Your task to perform on an android device: toggle airplane mode Image 0: 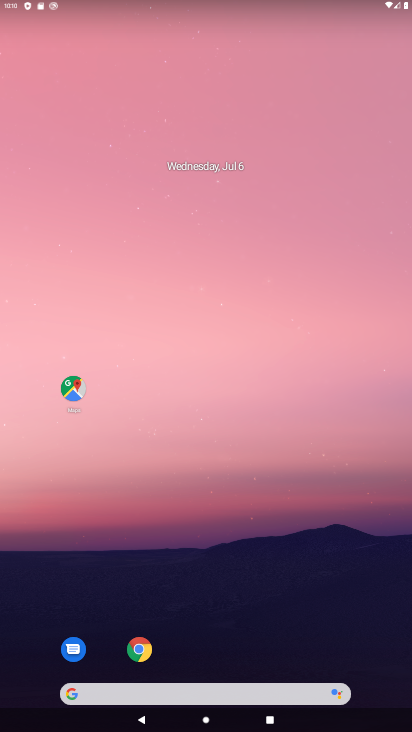
Step 0: drag from (363, 621) to (301, 255)
Your task to perform on an android device: toggle airplane mode Image 1: 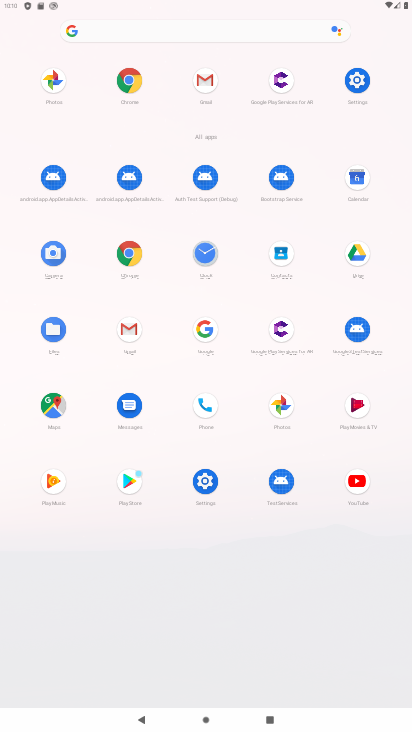
Step 1: click (367, 81)
Your task to perform on an android device: toggle airplane mode Image 2: 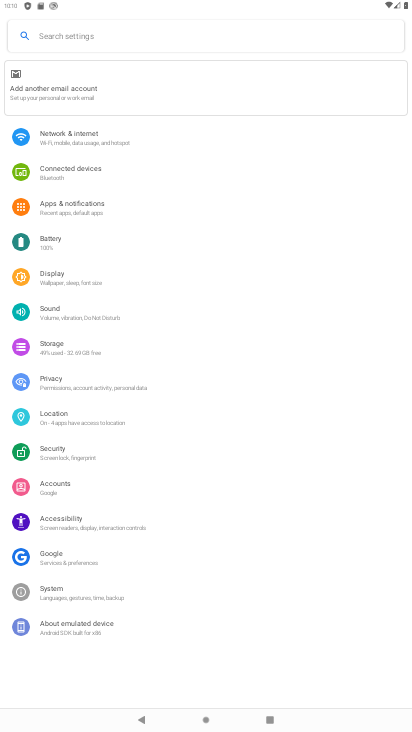
Step 2: drag from (290, 134) to (285, 497)
Your task to perform on an android device: toggle airplane mode Image 3: 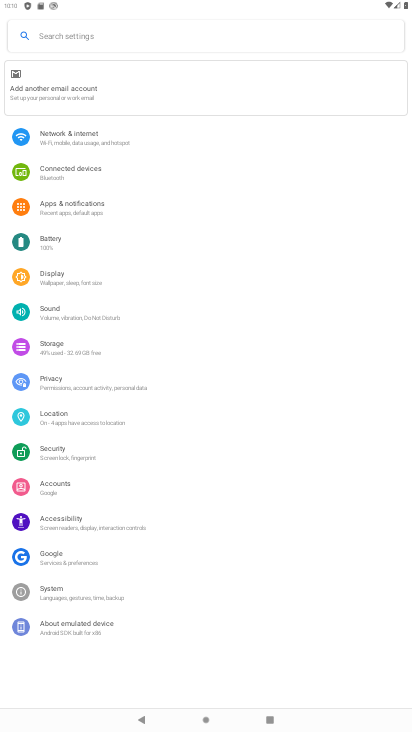
Step 3: click (77, 149)
Your task to perform on an android device: toggle airplane mode Image 4: 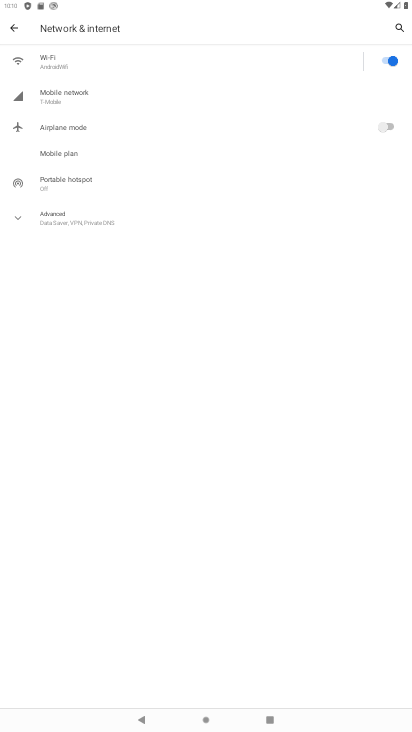
Step 4: click (388, 123)
Your task to perform on an android device: toggle airplane mode Image 5: 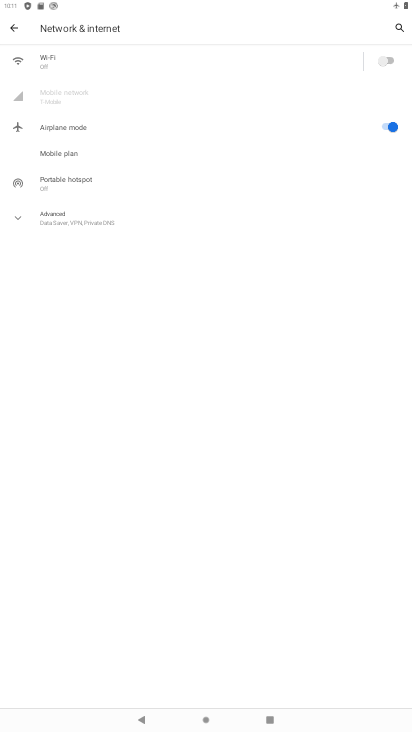
Step 5: task complete